Your task to perform on an android device: find photos in the google photos app Image 0: 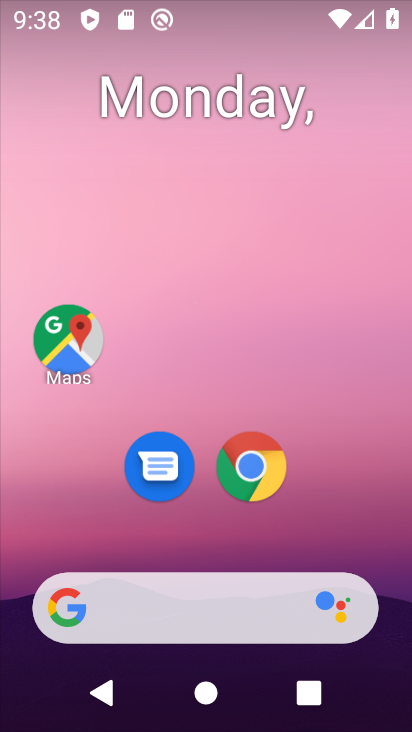
Step 0: drag from (372, 514) to (367, 59)
Your task to perform on an android device: find photos in the google photos app Image 1: 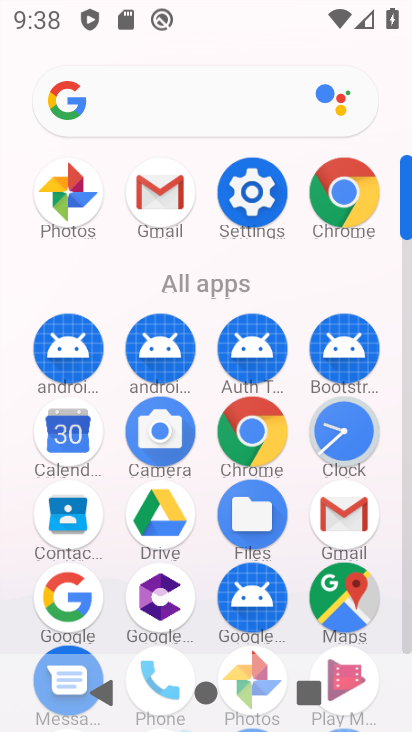
Step 1: click (407, 592)
Your task to perform on an android device: find photos in the google photos app Image 2: 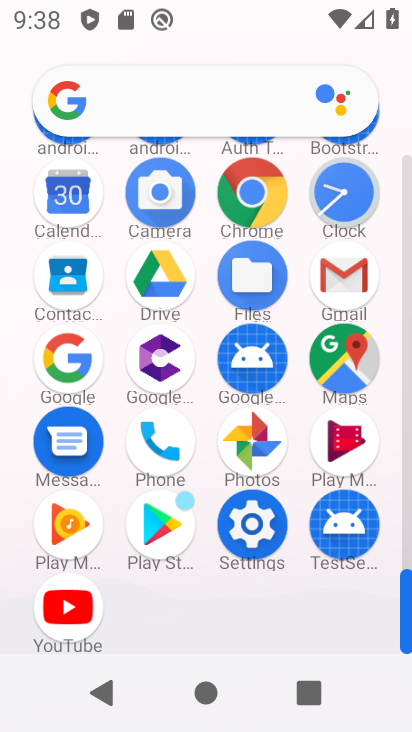
Step 2: click (242, 440)
Your task to perform on an android device: find photos in the google photos app Image 3: 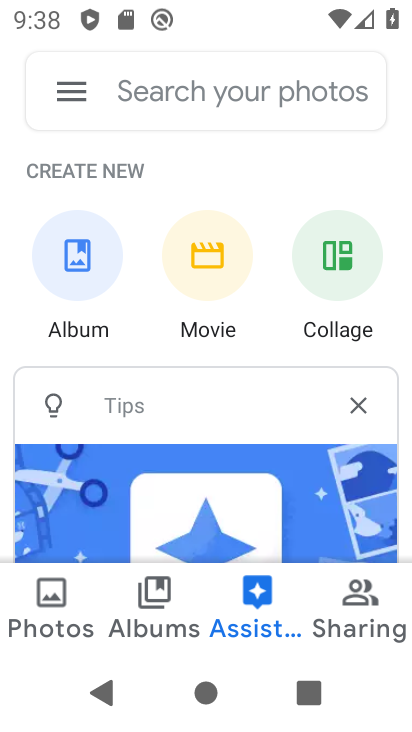
Step 3: click (62, 104)
Your task to perform on an android device: find photos in the google photos app Image 4: 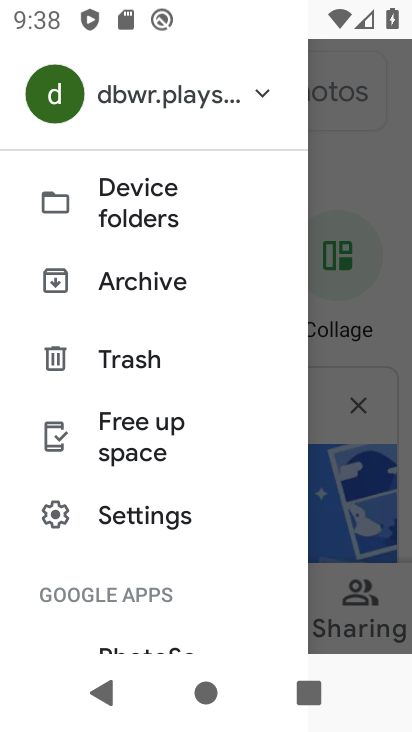
Step 4: drag from (196, 586) to (217, 441)
Your task to perform on an android device: find photos in the google photos app Image 5: 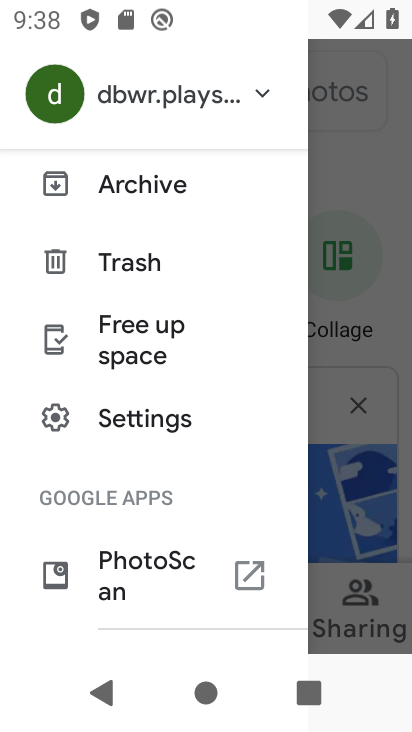
Step 5: click (376, 344)
Your task to perform on an android device: find photos in the google photos app Image 6: 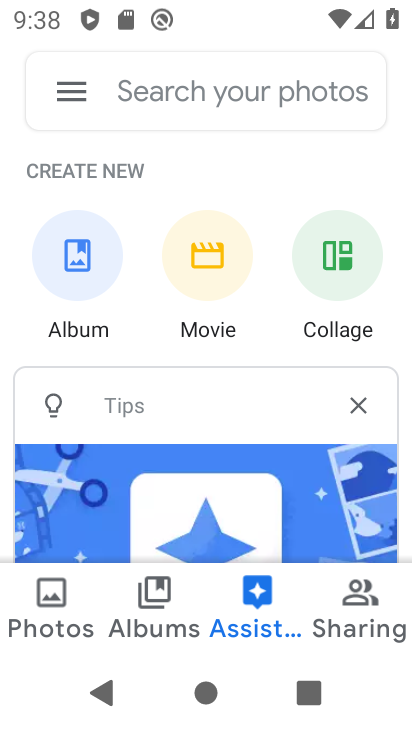
Step 6: click (55, 607)
Your task to perform on an android device: find photos in the google photos app Image 7: 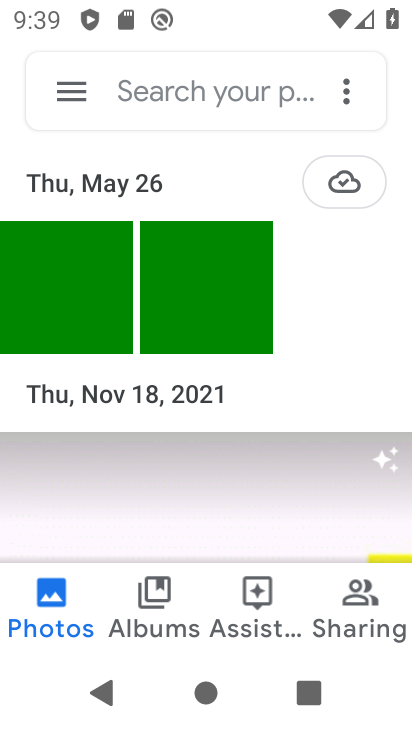
Step 7: task complete